Your task to perform on an android device: check google app version Image 0: 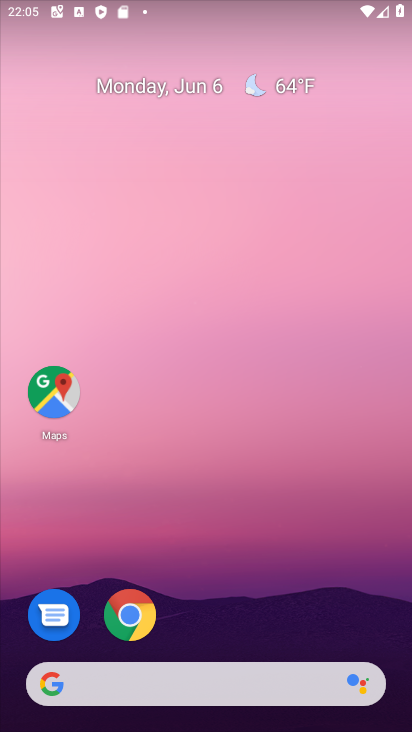
Step 0: drag from (399, 560) to (390, 183)
Your task to perform on an android device: check google app version Image 1: 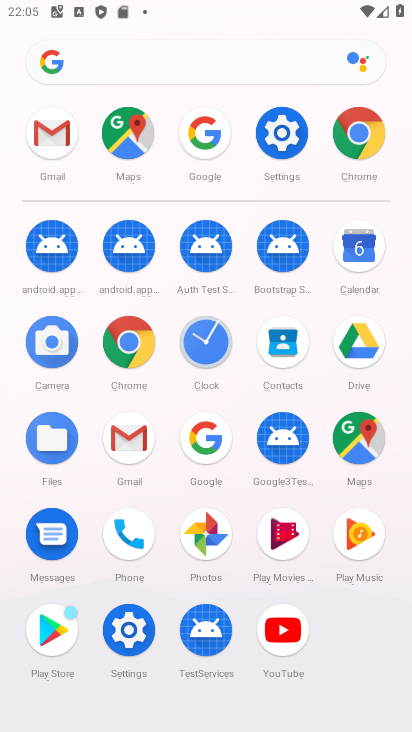
Step 1: click (201, 441)
Your task to perform on an android device: check google app version Image 2: 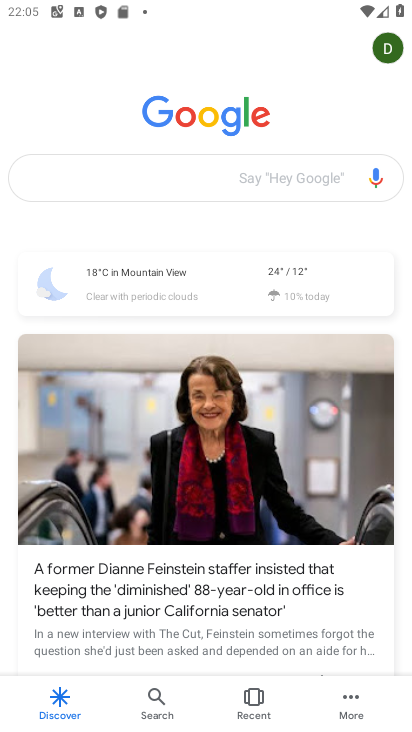
Step 2: click (358, 701)
Your task to perform on an android device: check google app version Image 3: 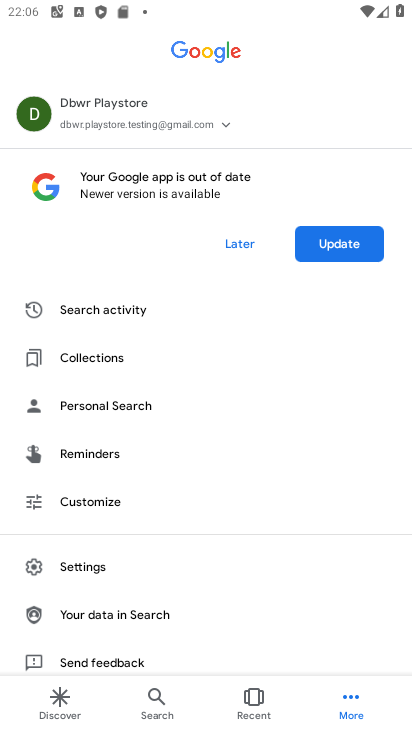
Step 3: click (59, 562)
Your task to perform on an android device: check google app version Image 4: 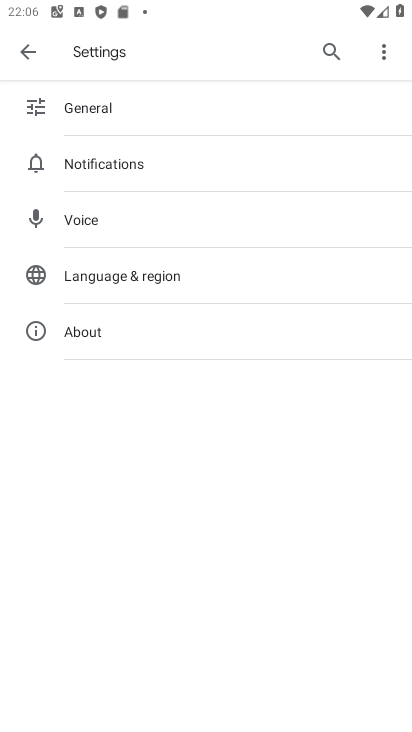
Step 4: click (107, 320)
Your task to perform on an android device: check google app version Image 5: 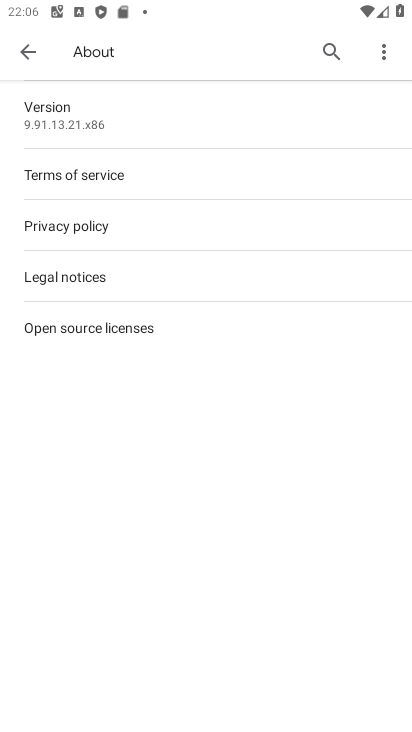
Step 5: click (121, 103)
Your task to perform on an android device: check google app version Image 6: 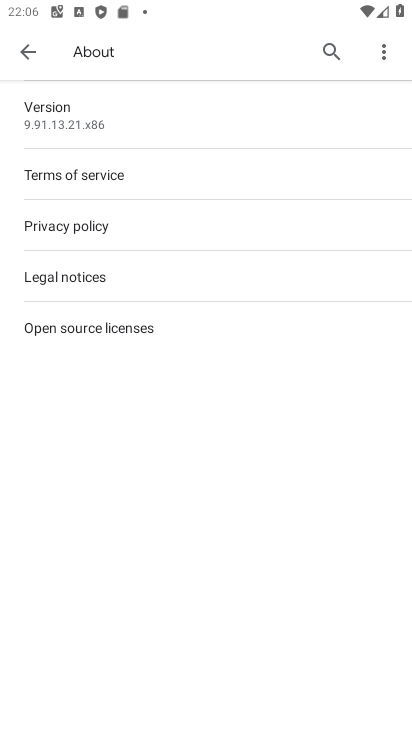
Step 6: task complete